Your task to perform on an android device: turn off data saver in the chrome app Image 0: 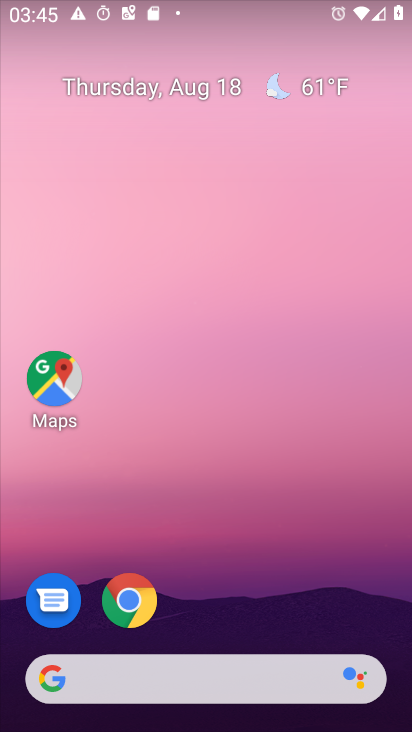
Step 0: press home button
Your task to perform on an android device: turn off data saver in the chrome app Image 1: 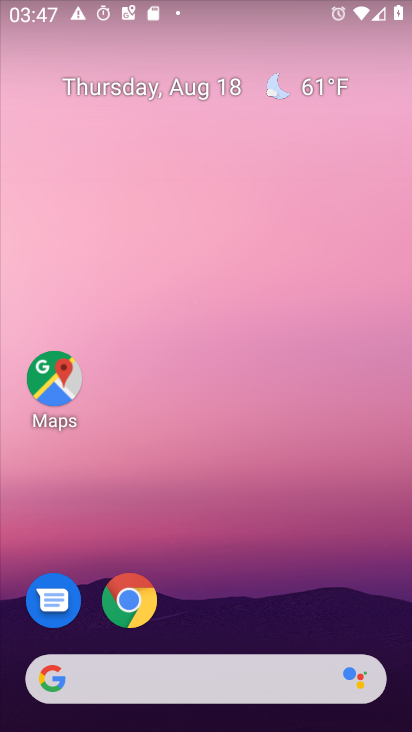
Step 1: click (127, 605)
Your task to perform on an android device: turn off data saver in the chrome app Image 2: 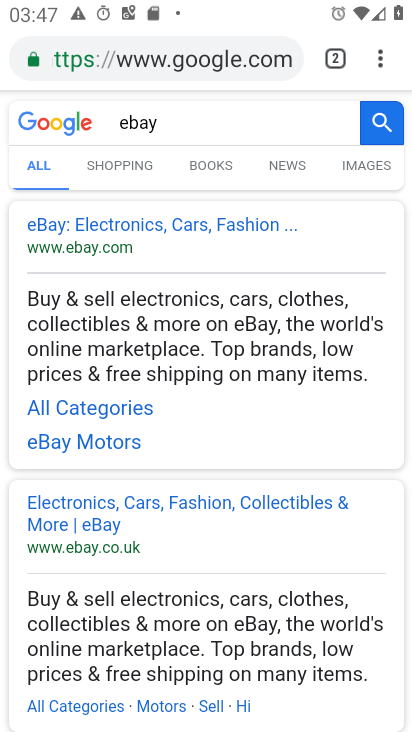
Step 2: drag from (378, 53) to (219, 361)
Your task to perform on an android device: turn off data saver in the chrome app Image 3: 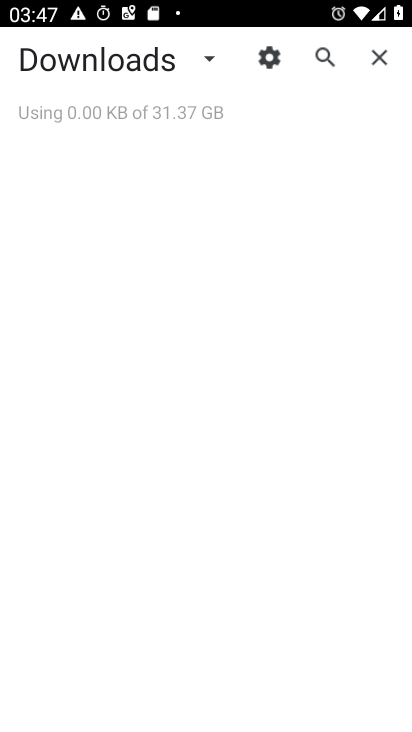
Step 3: press back button
Your task to perform on an android device: turn off data saver in the chrome app Image 4: 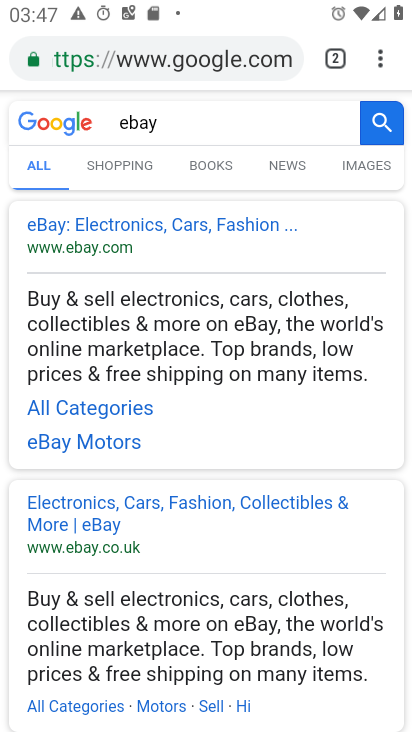
Step 4: drag from (374, 60) to (191, 637)
Your task to perform on an android device: turn off data saver in the chrome app Image 5: 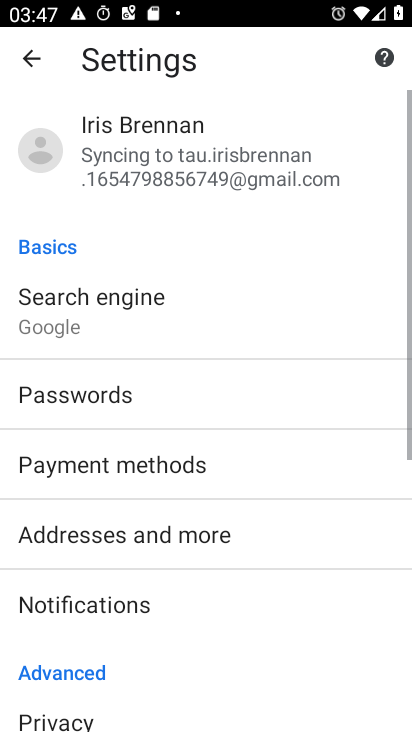
Step 5: drag from (213, 563) to (168, 91)
Your task to perform on an android device: turn off data saver in the chrome app Image 6: 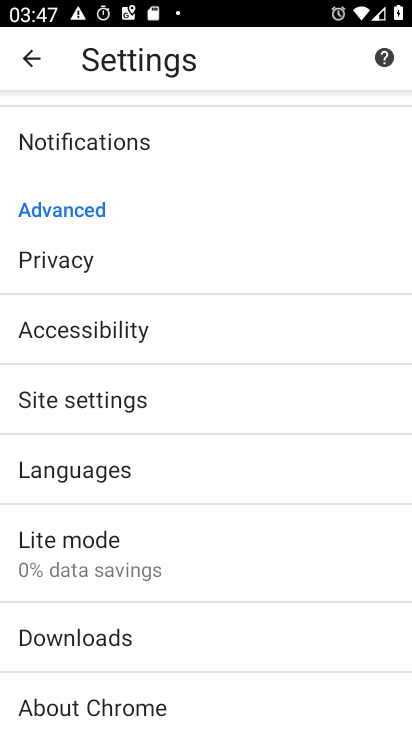
Step 6: click (58, 551)
Your task to perform on an android device: turn off data saver in the chrome app Image 7: 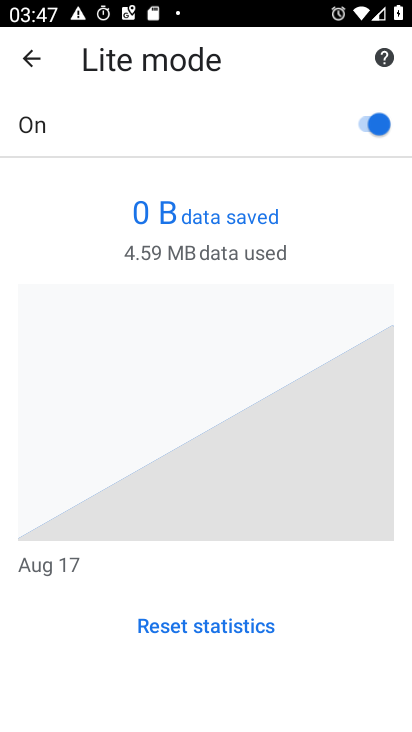
Step 7: click (380, 129)
Your task to perform on an android device: turn off data saver in the chrome app Image 8: 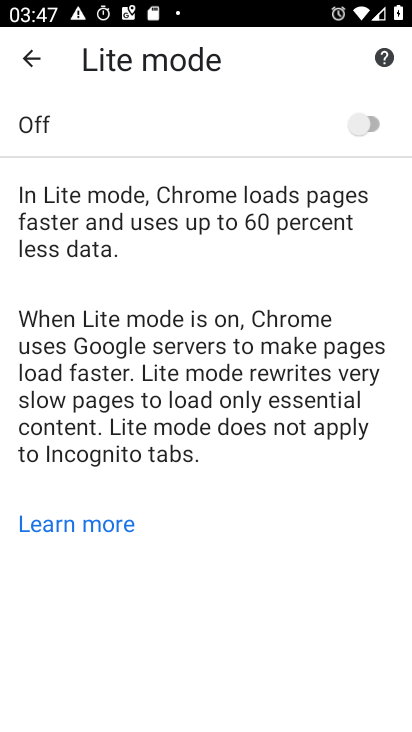
Step 8: task complete